Your task to perform on an android device: What is the recent news? Image 0: 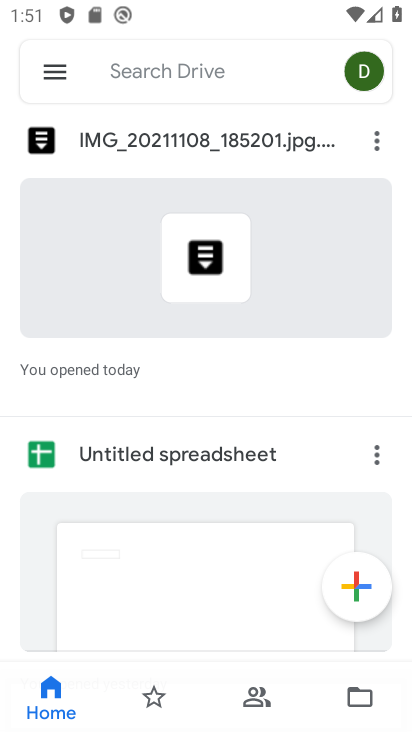
Step 0: press home button
Your task to perform on an android device: What is the recent news? Image 1: 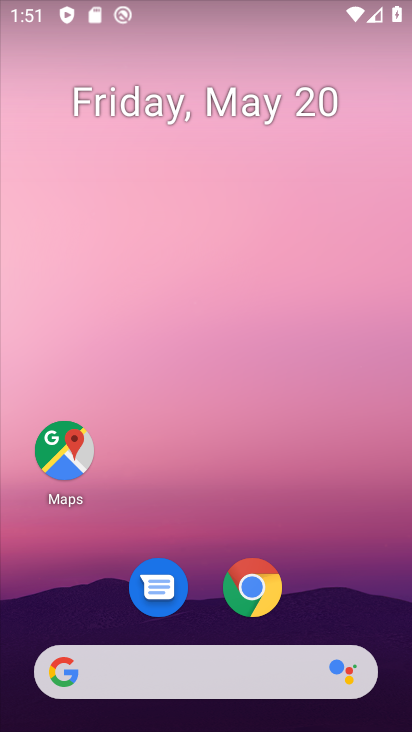
Step 1: task complete